Your task to perform on an android device: toggle wifi Image 0: 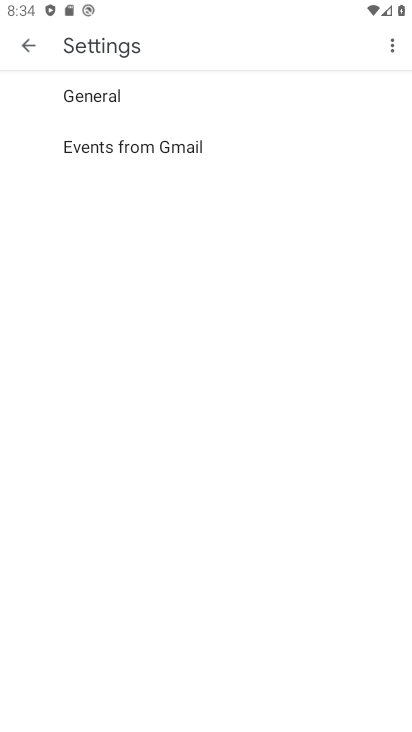
Step 0: press back button
Your task to perform on an android device: toggle wifi Image 1: 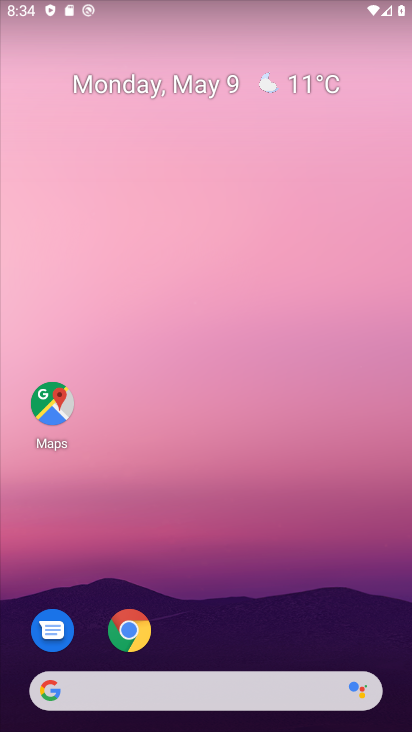
Step 1: drag from (213, 669) to (378, 7)
Your task to perform on an android device: toggle wifi Image 2: 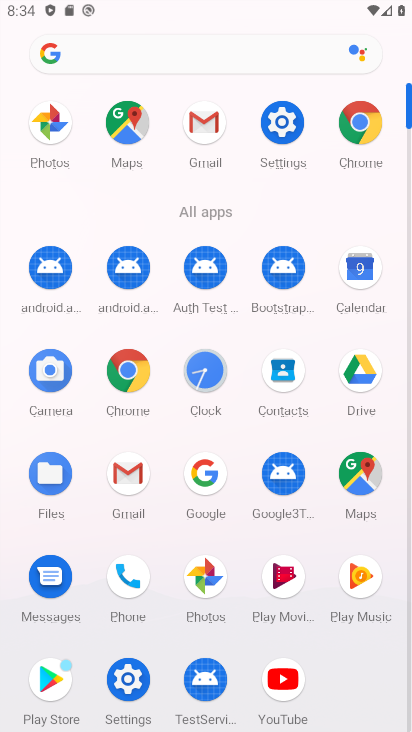
Step 2: click (133, 678)
Your task to perform on an android device: toggle wifi Image 3: 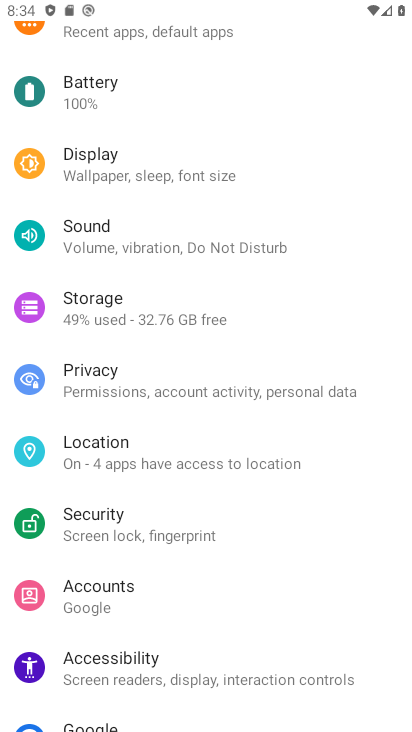
Step 3: drag from (272, 100) to (240, 519)
Your task to perform on an android device: toggle wifi Image 4: 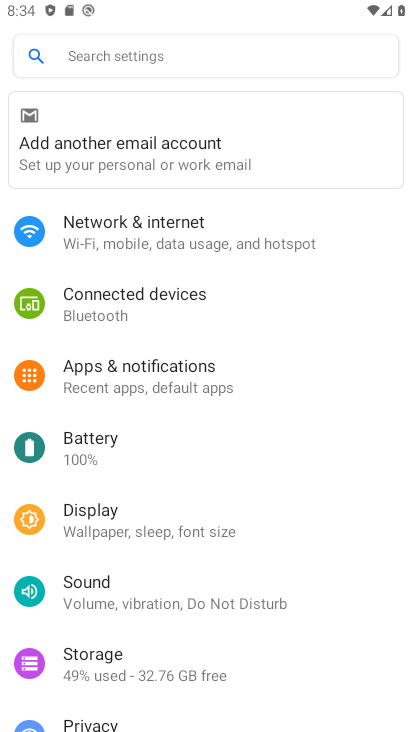
Step 4: click (180, 229)
Your task to perform on an android device: toggle wifi Image 5: 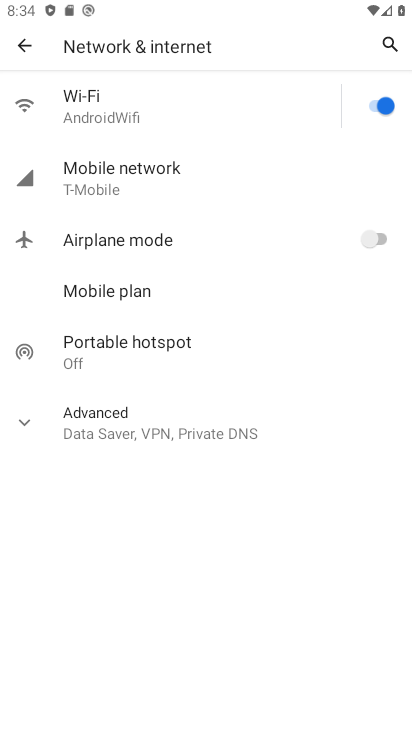
Step 5: click (377, 104)
Your task to perform on an android device: toggle wifi Image 6: 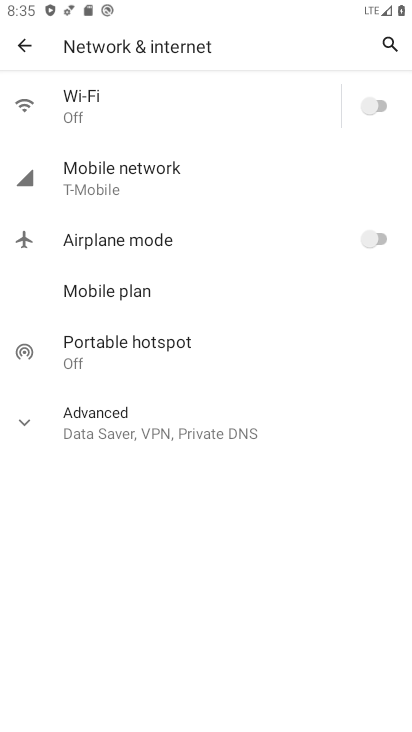
Step 6: task complete